Your task to perform on an android device: Open calendar and show me the first week of next month Image 0: 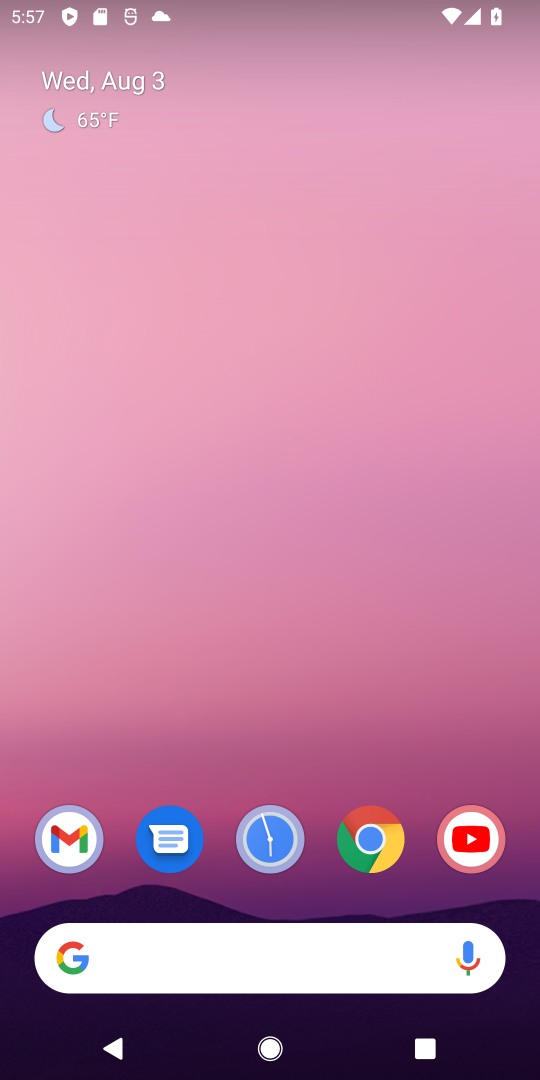
Step 0: drag from (261, 641) to (342, 61)
Your task to perform on an android device: Open calendar and show me the first week of next month Image 1: 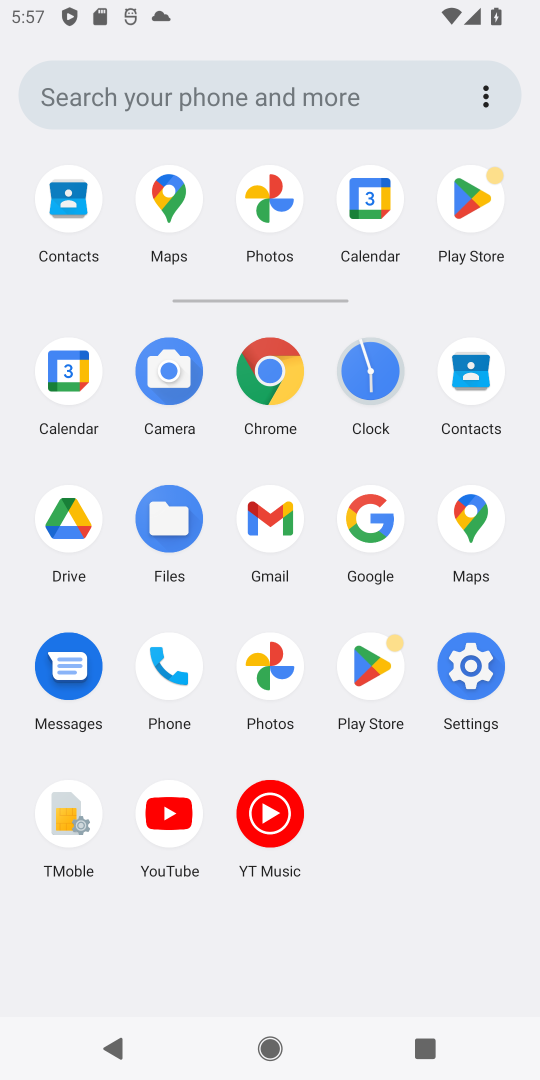
Step 1: click (74, 374)
Your task to perform on an android device: Open calendar and show me the first week of next month Image 2: 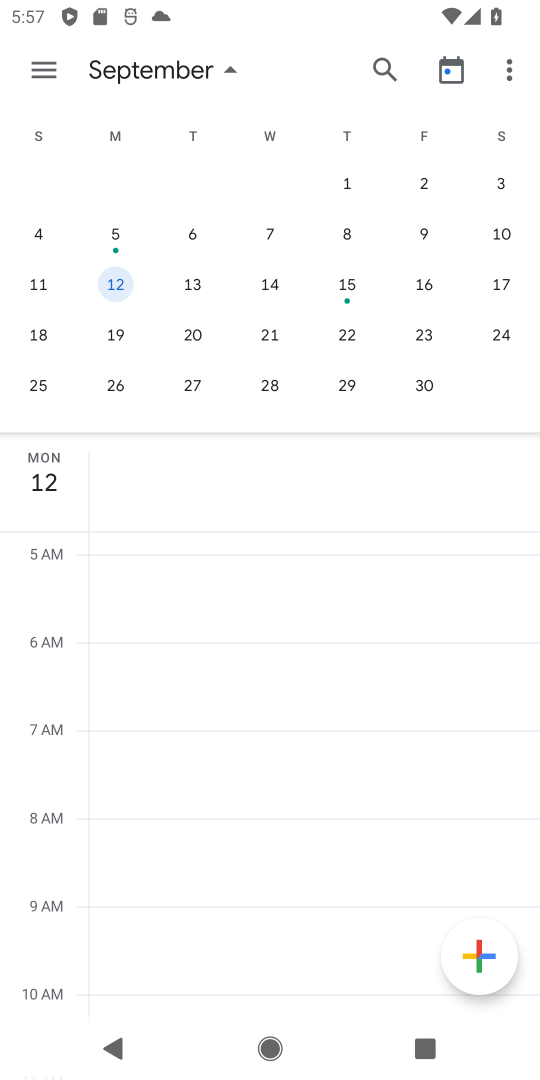
Step 2: click (353, 182)
Your task to perform on an android device: Open calendar and show me the first week of next month Image 3: 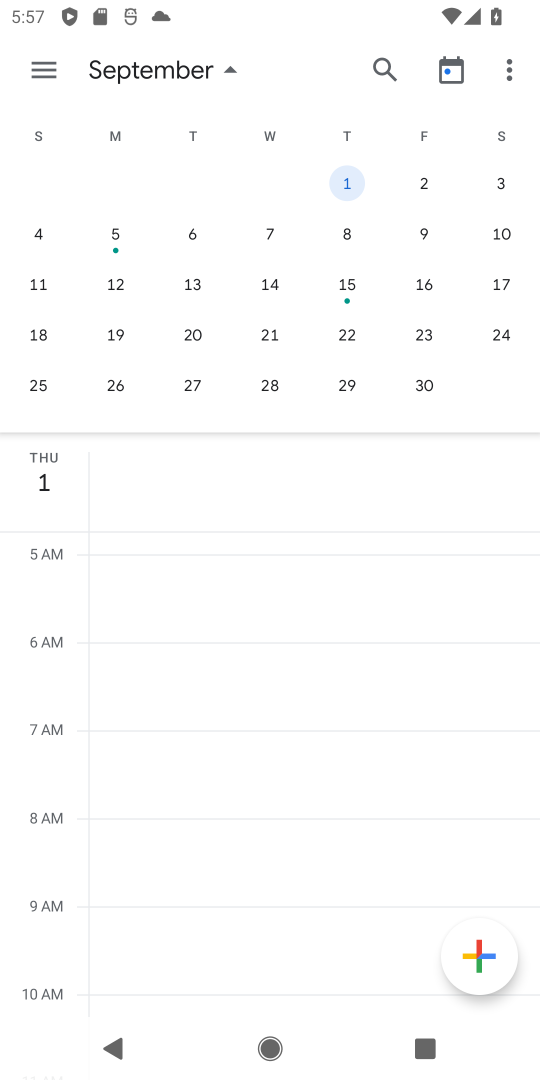
Step 3: task complete